Your task to perform on an android device: turn on wifi Image 0: 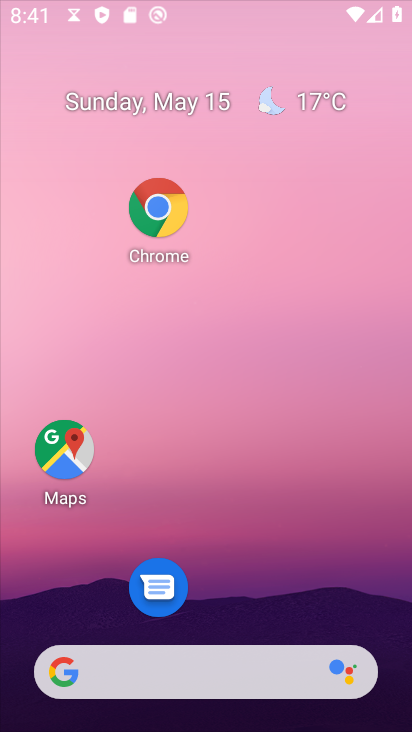
Step 0: click (399, 76)
Your task to perform on an android device: turn on wifi Image 1: 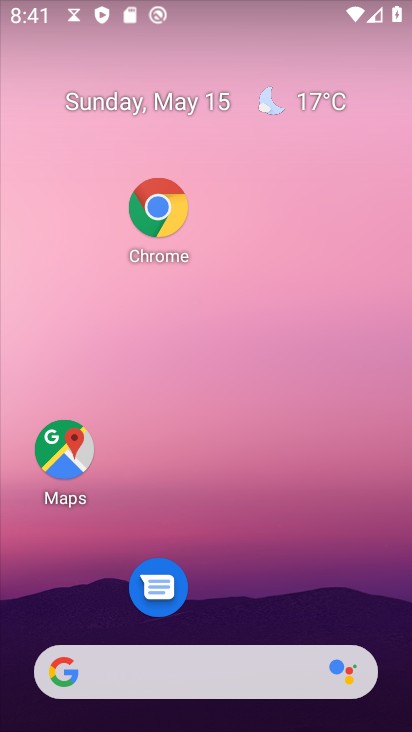
Step 1: drag from (302, 622) to (132, 241)
Your task to perform on an android device: turn on wifi Image 2: 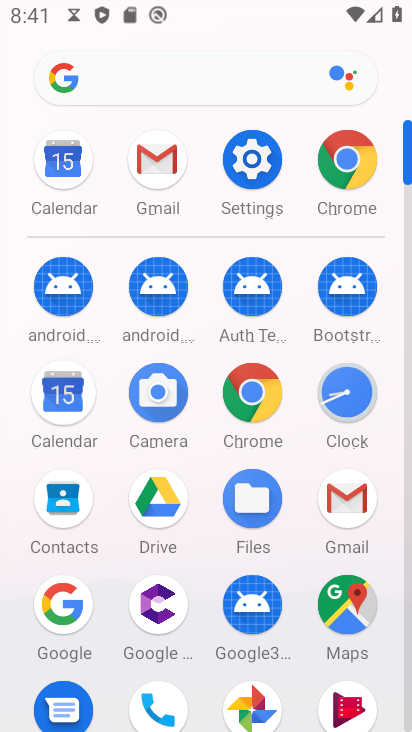
Step 2: click (241, 154)
Your task to perform on an android device: turn on wifi Image 3: 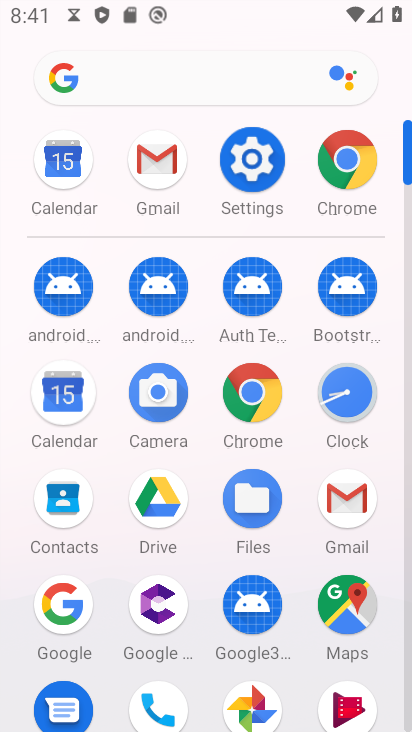
Step 3: click (241, 154)
Your task to perform on an android device: turn on wifi Image 4: 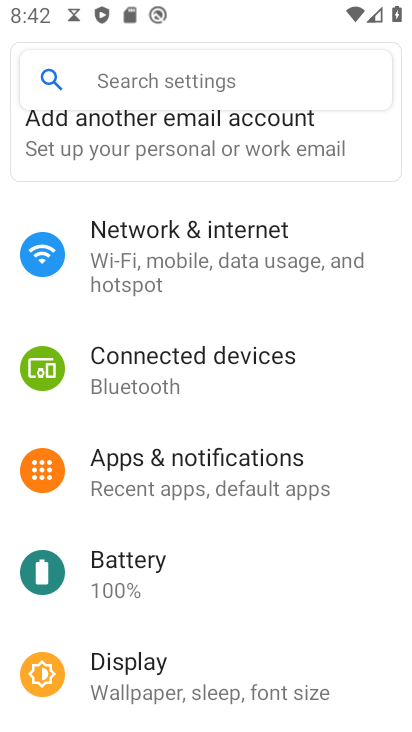
Step 4: click (176, 255)
Your task to perform on an android device: turn on wifi Image 5: 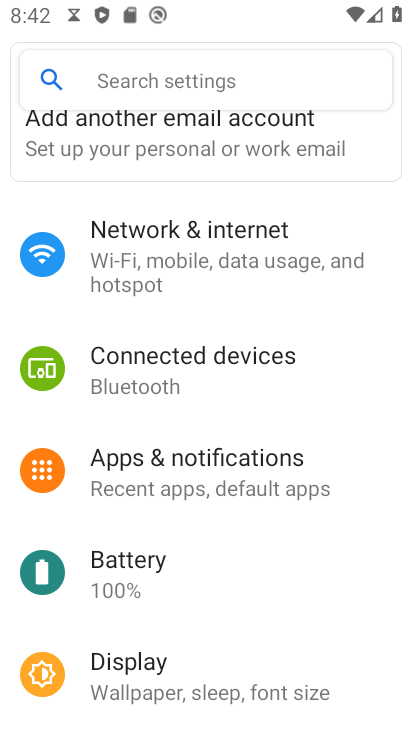
Step 5: click (177, 254)
Your task to perform on an android device: turn on wifi Image 6: 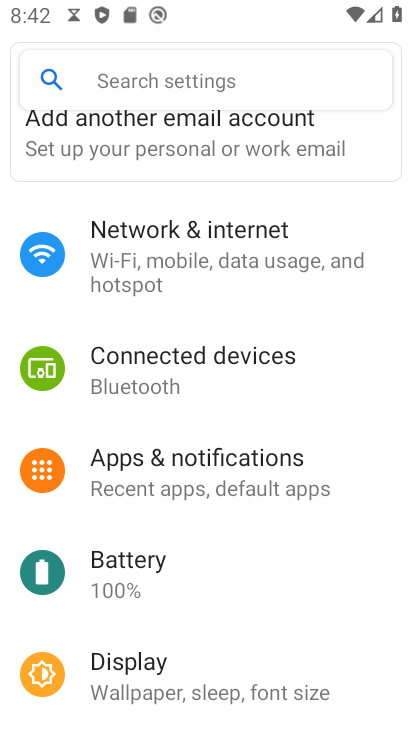
Step 6: click (177, 254)
Your task to perform on an android device: turn on wifi Image 7: 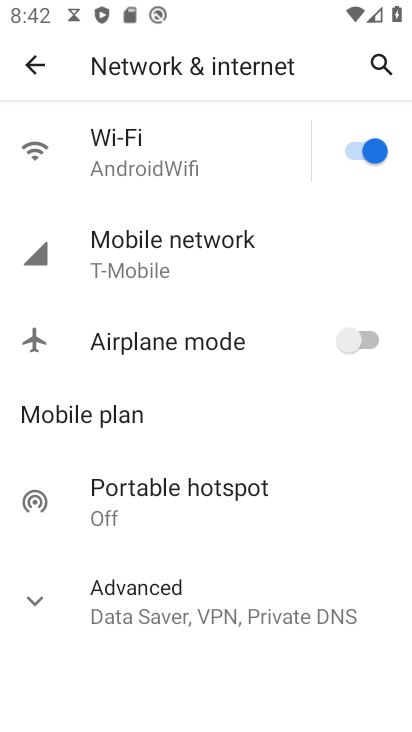
Step 7: task complete